Your task to perform on an android device: add a label to a message in the gmail app Image 0: 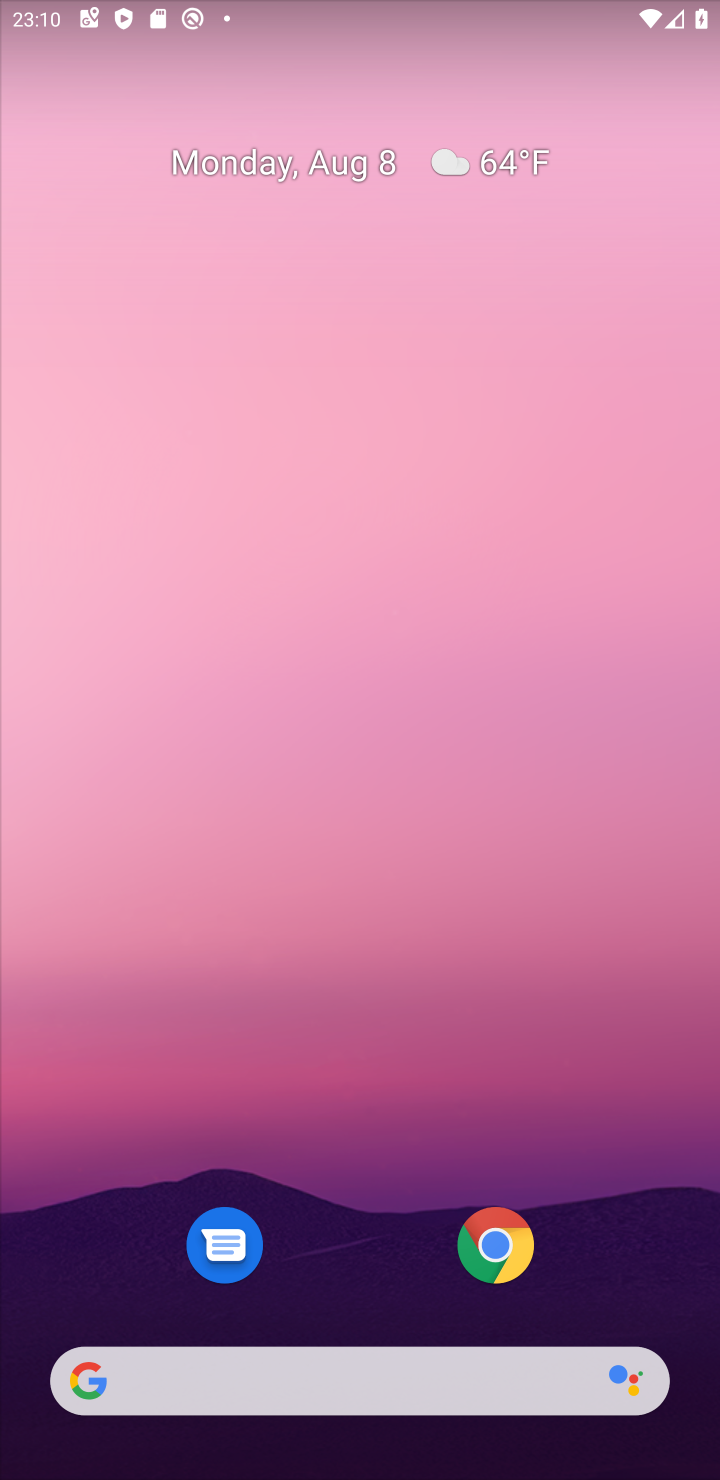
Step 0: drag from (376, 1164) to (255, 259)
Your task to perform on an android device: add a label to a message in the gmail app Image 1: 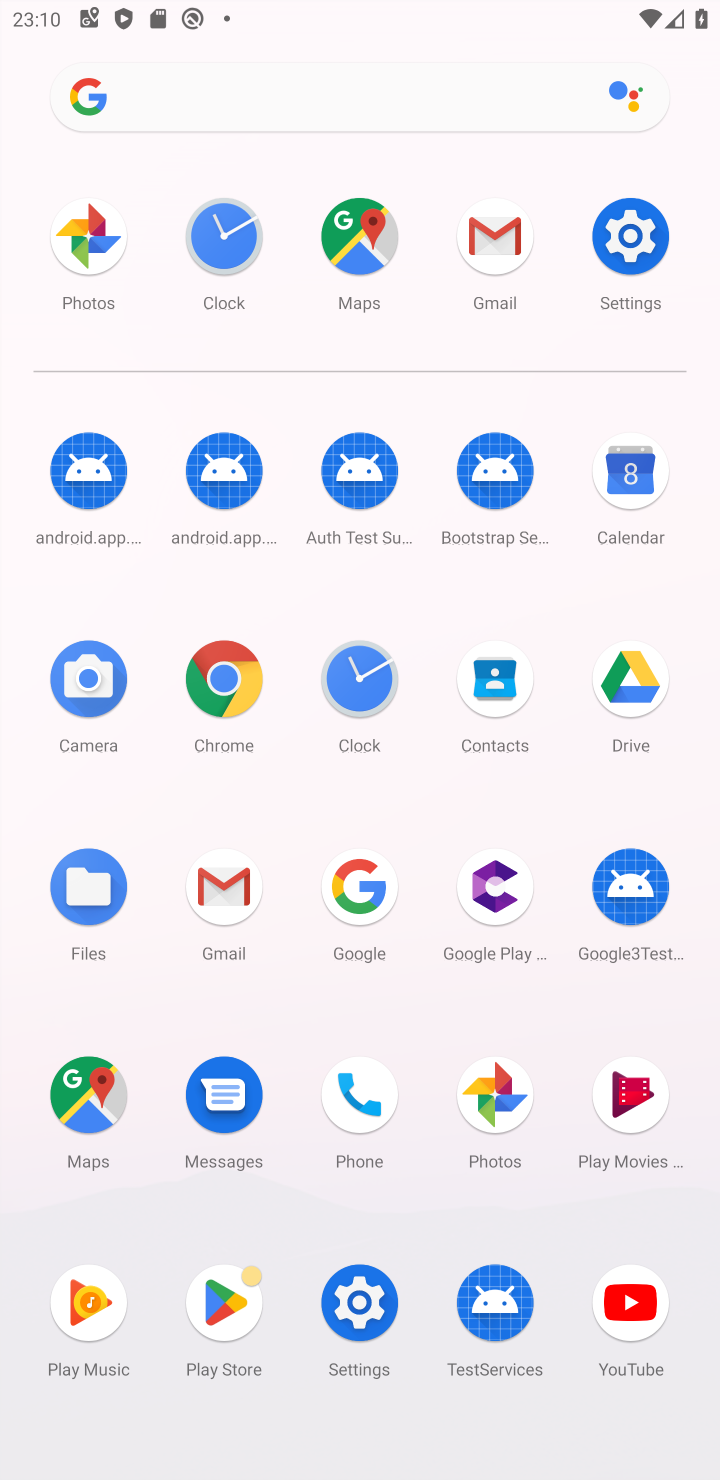
Step 1: click (479, 232)
Your task to perform on an android device: add a label to a message in the gmail app Image 2: 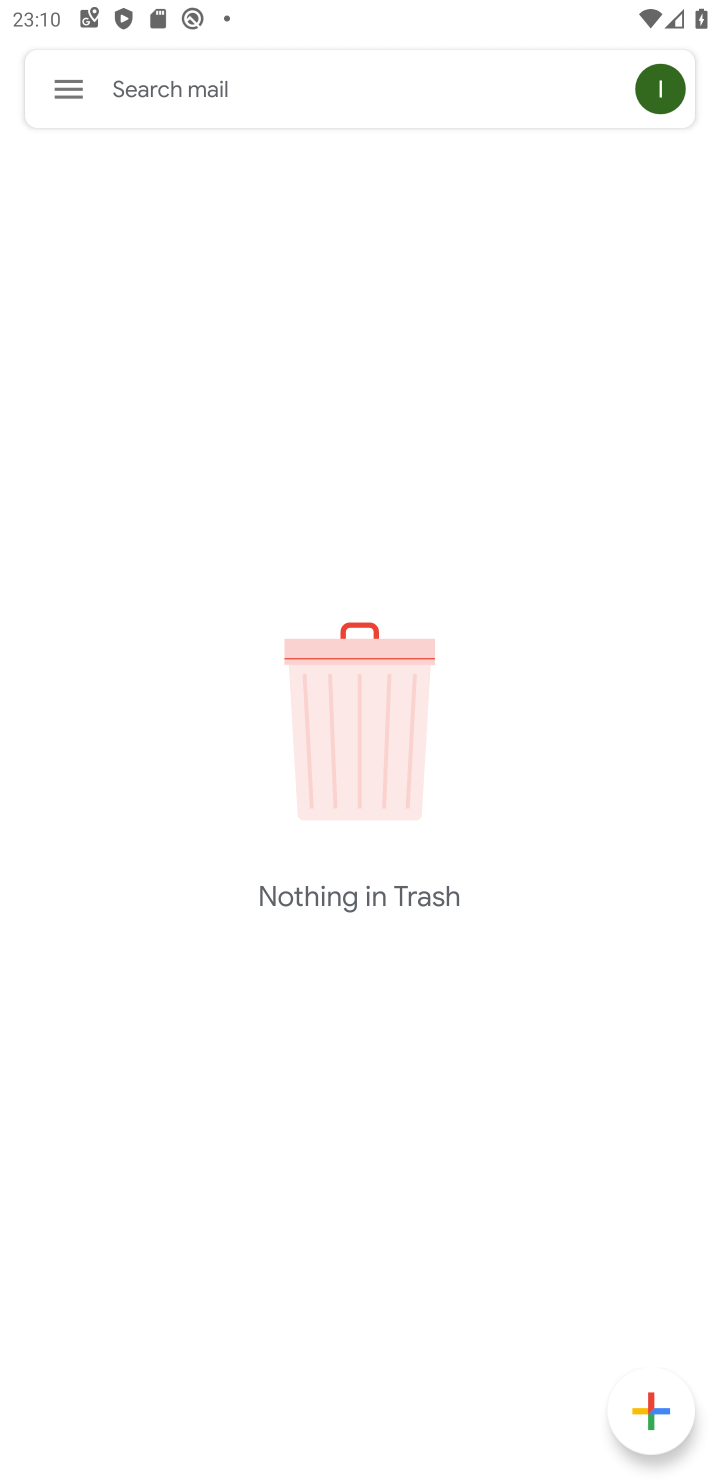
Step 2: click (69, 87)
Your task to perform on an android device: add a label to a message in the gmail app Image 3: 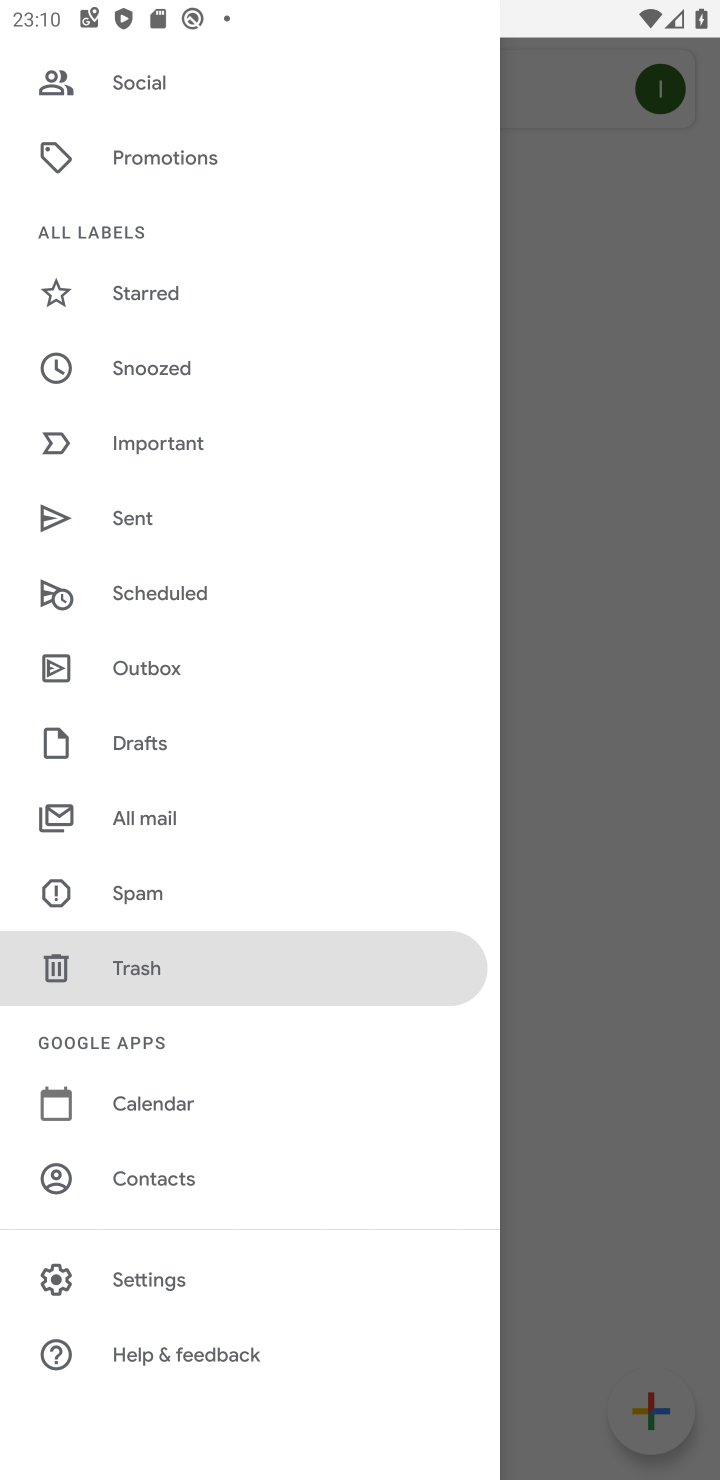
Step 3: click (155, 805)
Your task to perform on an android device: add a label to a message in the gmail app Image 4: 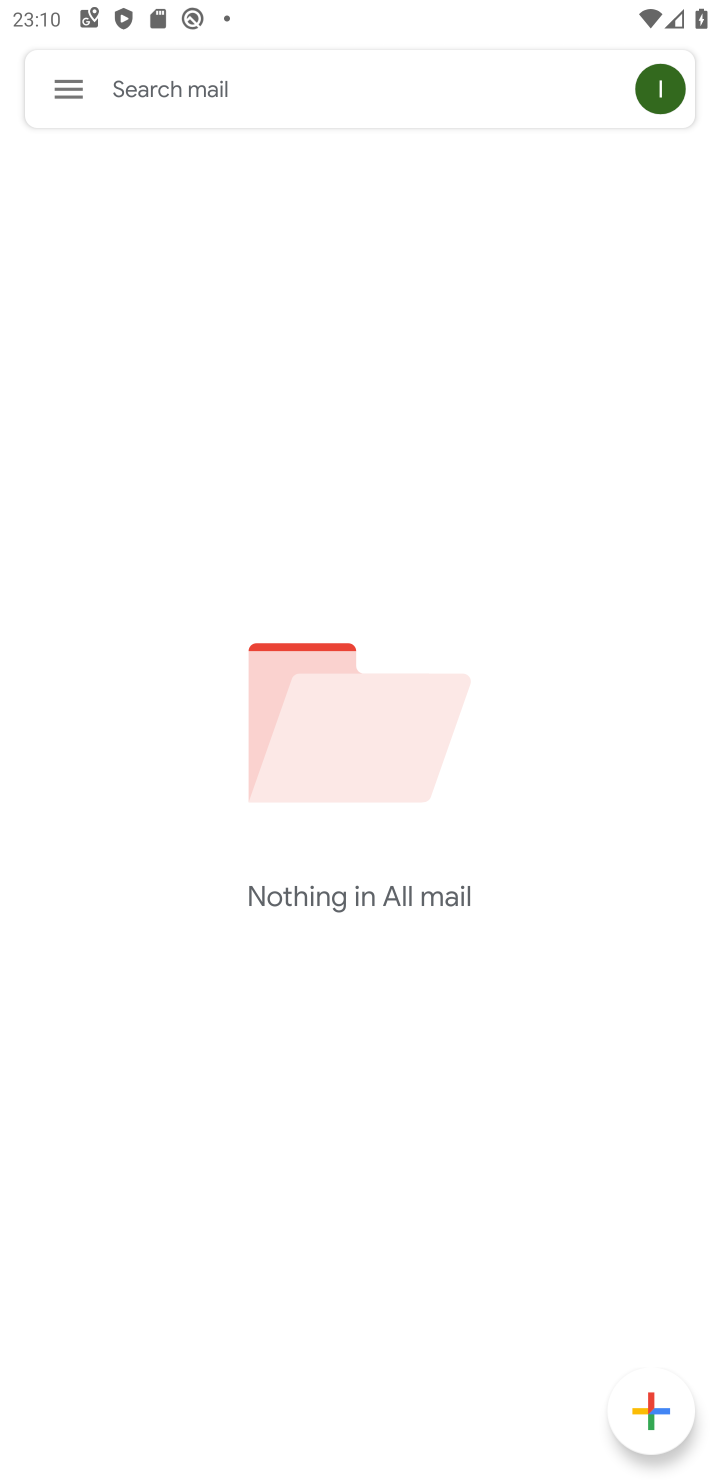
Step 4: task complete